Your task to perform on an android device: allow notifications from all sites in the chrome app Image 0: 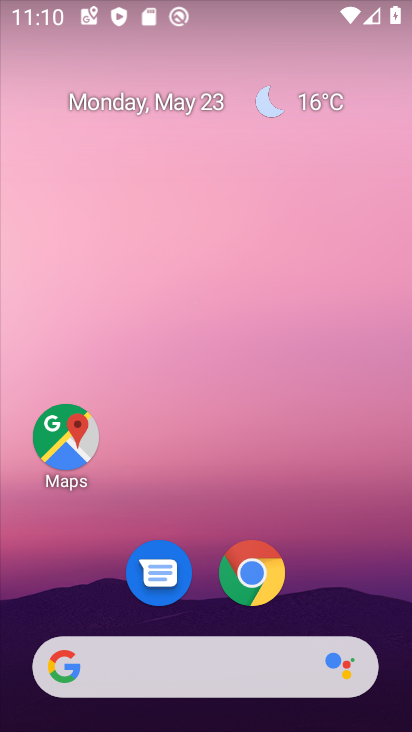
Step 0: drag from (317, 467) to (276, 29)
Your task to perform on an android device: allow notifications from all sites in the chrome app Image 1: 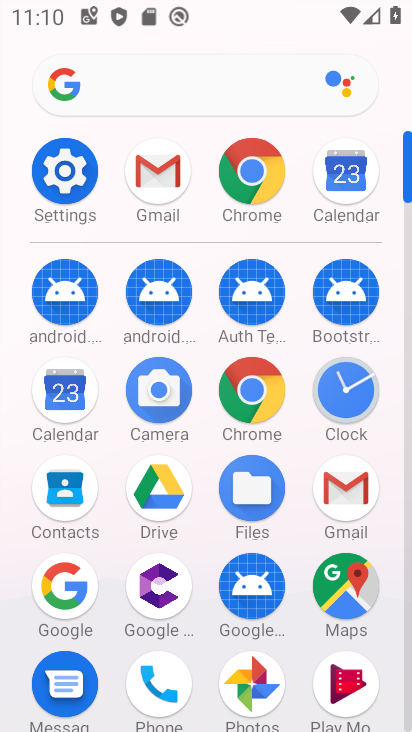
Step 1: click (243, 386)
Your task to perform on an android device: allow notifications from all sites in the chrome app Image 2: 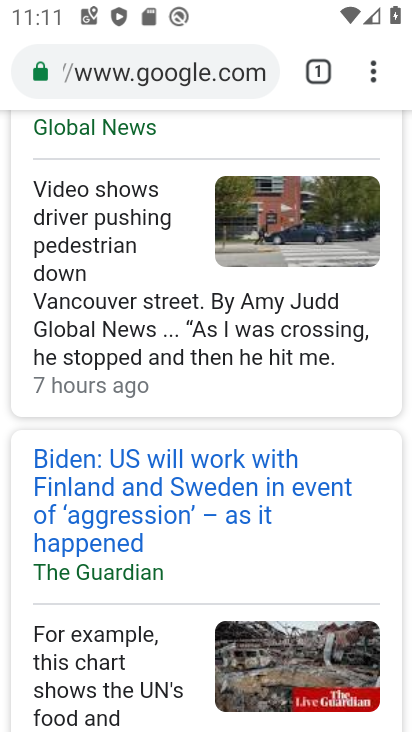
Step 2: drag from (162, 553) to (156, 129)
Your task to perform on an android device: allow notifications from all sites in the chrome app Image 3: 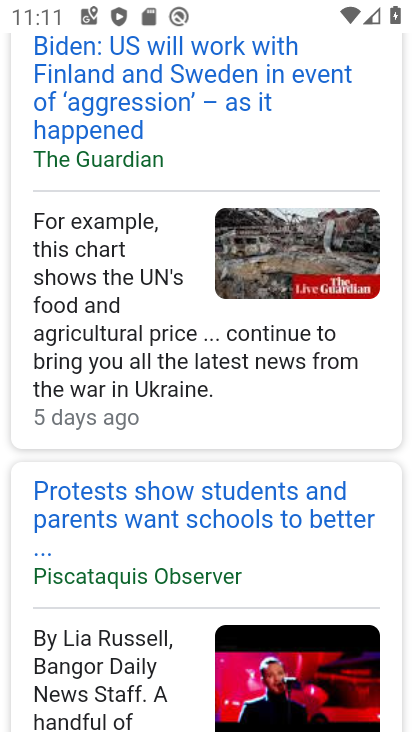
Step 3: drag from (156, 127) to (125, 543)
Your task to perform on an android device: allow notifications from all sites in the chrome app Image 4: 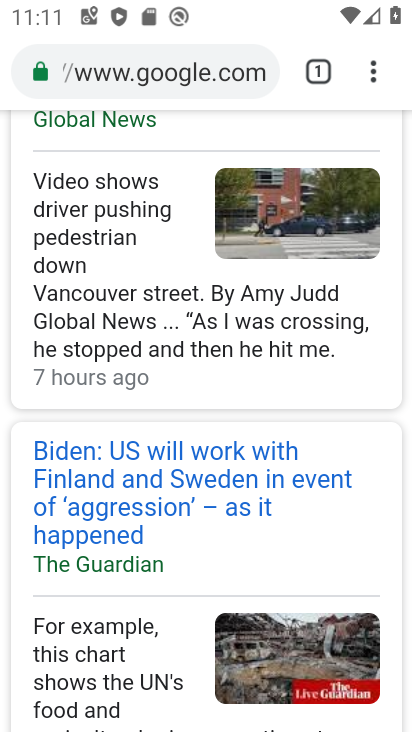
Step 4: drag from (370, 78) to (133, 569)
Your task to perform on an android device: allow notifications from all sites in the chrome app Image 5: 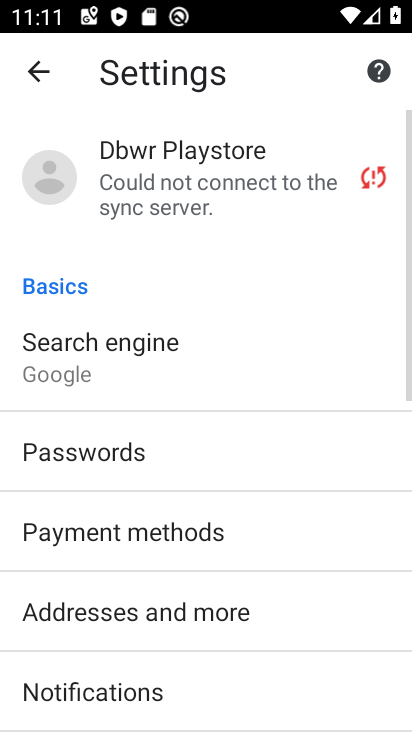
Step 5: drag from (307, 549) to (315, 183)
Your task to perform on an android device: allow notifications from all sites in the chrome app Image 6: 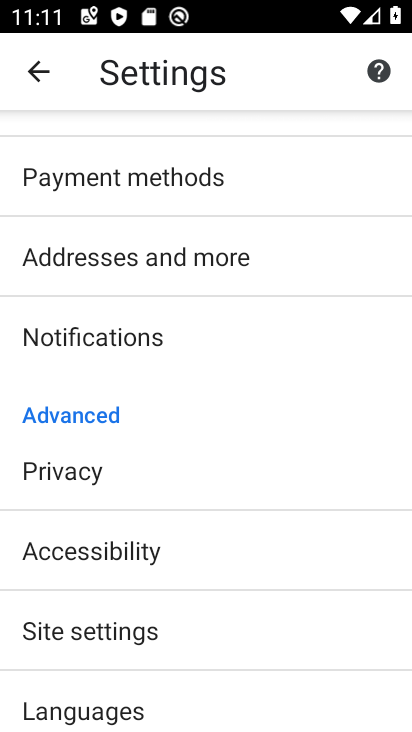
Step 6: drag from (286, 408) to (282, 227)
Your task to perform on an android device: allow notifications from all sites in the chrome app Image 7: 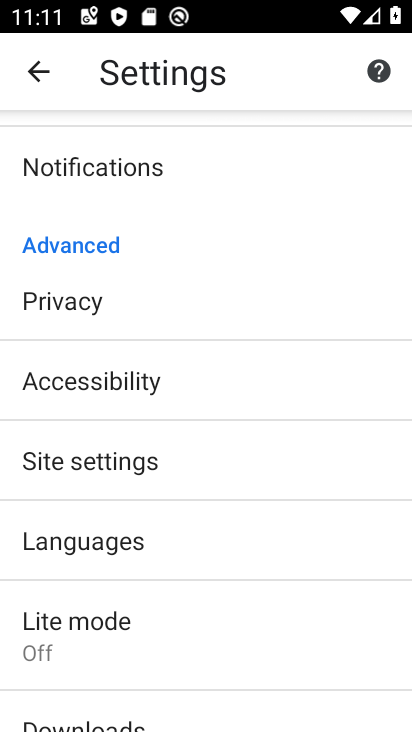
Step 7: drag from (278, 603) to (297, 150)
Your task to perform on an android device: allow notifications from all sites in the chrome app Image 8: 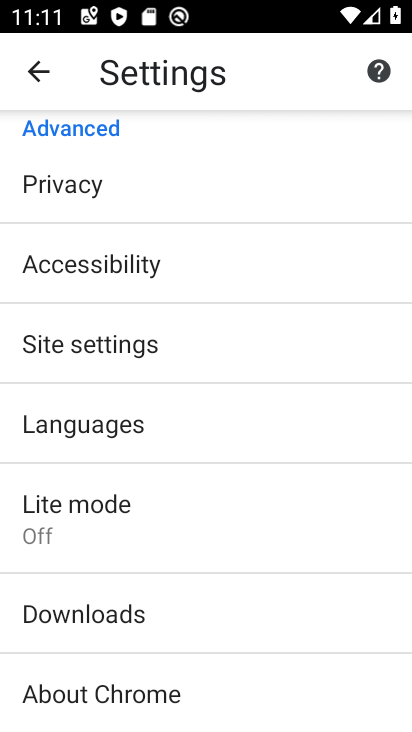
Step 8: drag from (264, 225) to (264, 623)
Your task to perform on an android device: allow notifications from all sites in the chrome app Image 9: 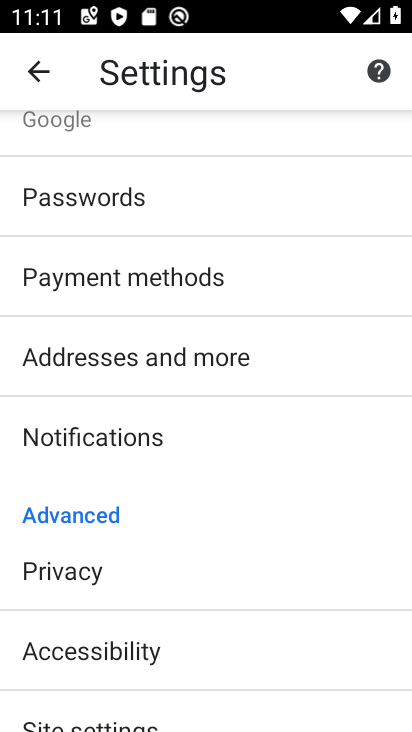
Step 9: click (150, 441)
Your task to perform on an android device: allow notifications from all sites in the chrome app Image 10: 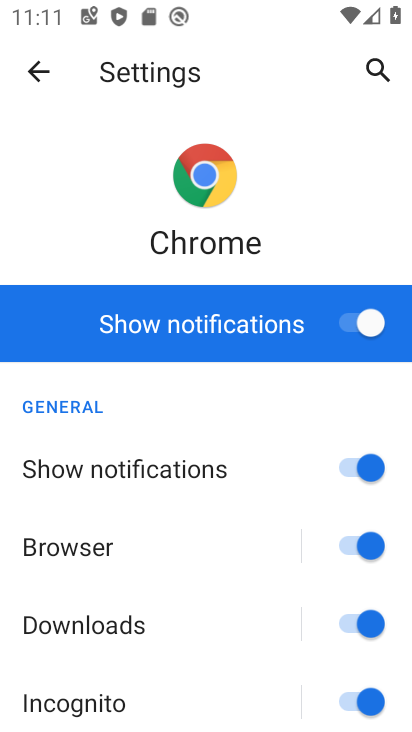
Step 10: drag from (179, 491) to (154, 252)
Your task to perform on an android device: allow notifications from all sites in the chrome app Image 11: 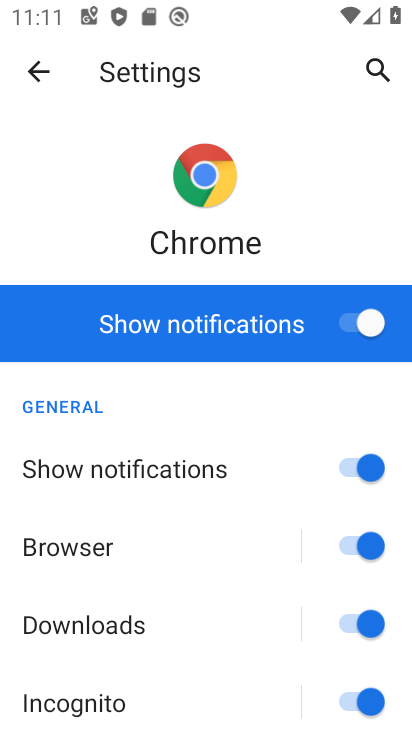
Step 11: click (42, 68)
Your task to perform on an android device: allow notifications from all sites in the chrome app Image 12: 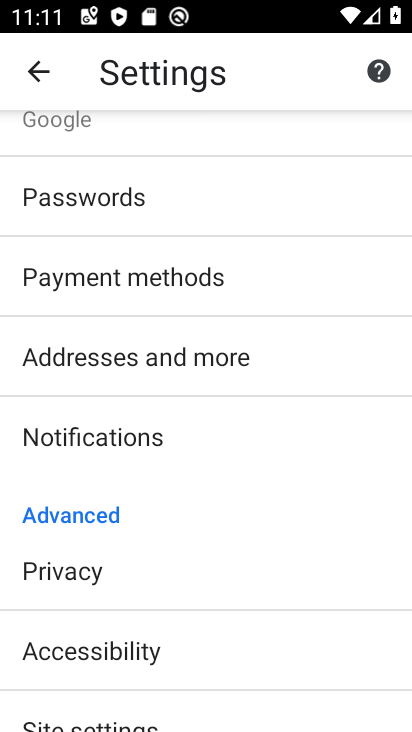
Step 12: drag from (199, 625) to (241, 245)
Your task to perform on an android device: allow notifications from all sites in the chrome app Image 13: 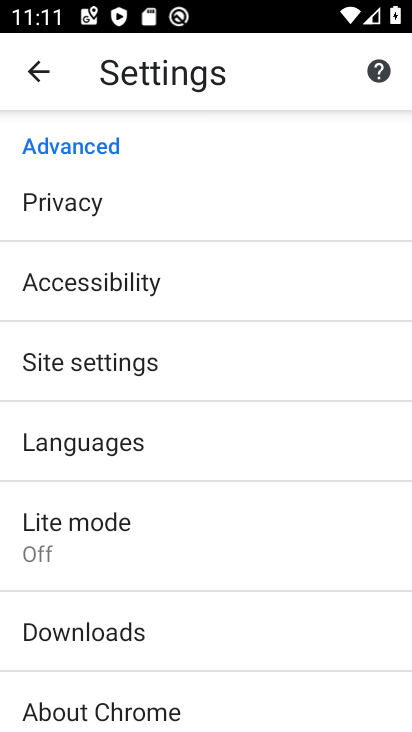
Step 13: click (109, 340)
Your task to perform on an android device: allow notifications from all sites in the chrome app Image 14: 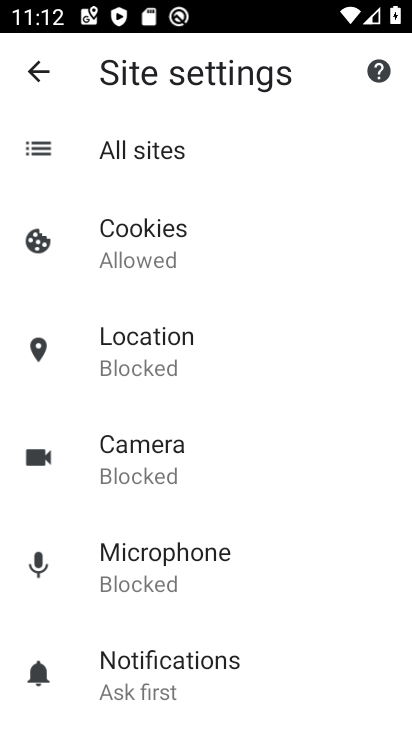
Step 14: drag from (265, 574) to (257, 197)
Your task to perform on an android device: allow notifications from all sites in the chrome app Image 15: 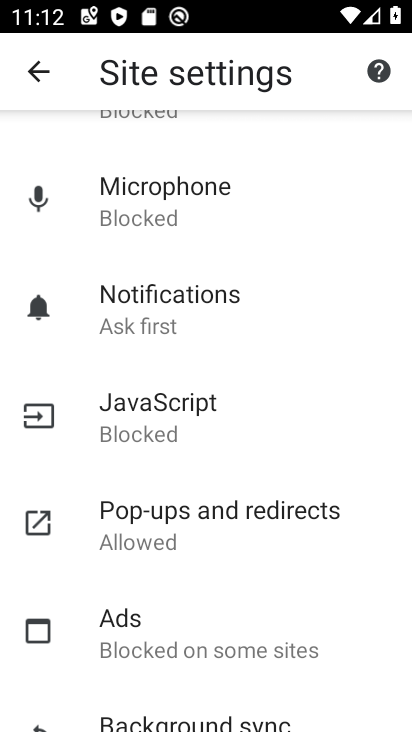
Step 15: click (202, 284)
Your task to perform on an android device: allow notifications from all sites in the chrome app Image 16: 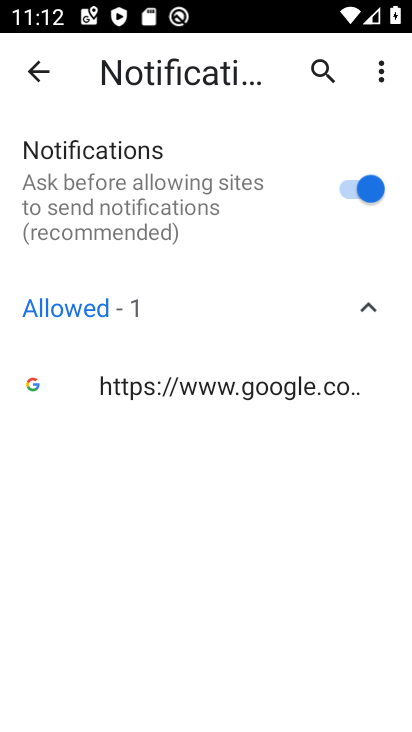
Step 16: task complete